Your task to perform on an android device: allow cookies in the chrome app Image 0: 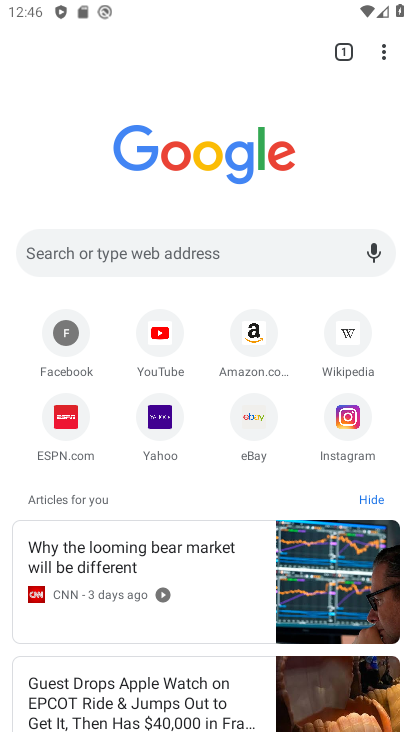
Step 0: press home button
Your task to perform on an android device: allow cookies in the chrome app Image 1: 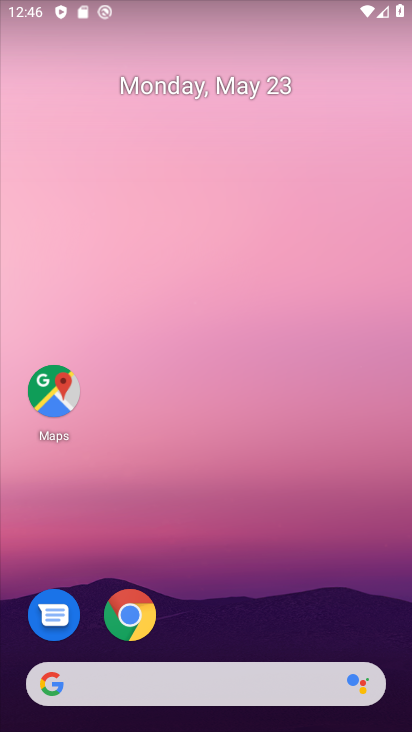
Step 1: click (125, 619)
Your task to perform on an android device: allow cookies in the chrome app Image 2: 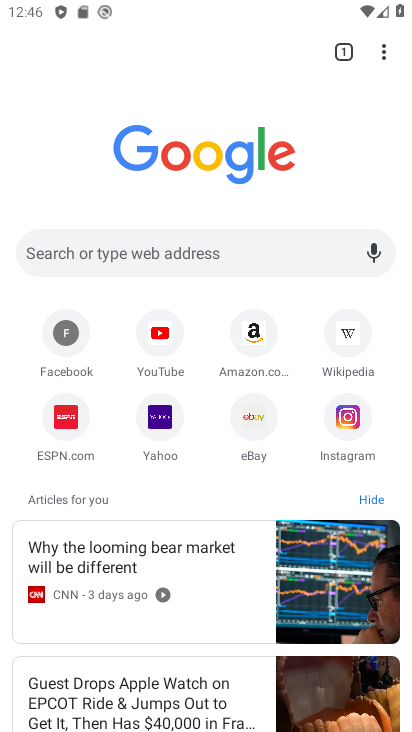
Step 2: click (386, 51)
Your task to perform on an android device: allow cookies in the chrome app Image 3: 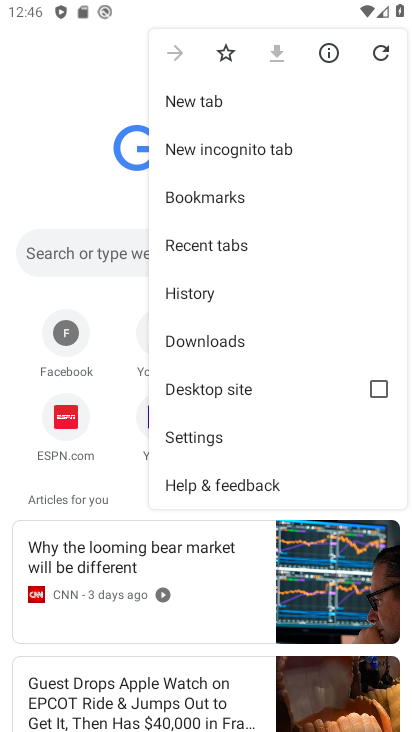
Step 3: click (196, 435)
Your task to perform on an android device: allow cookies in the chrome app Image 4: 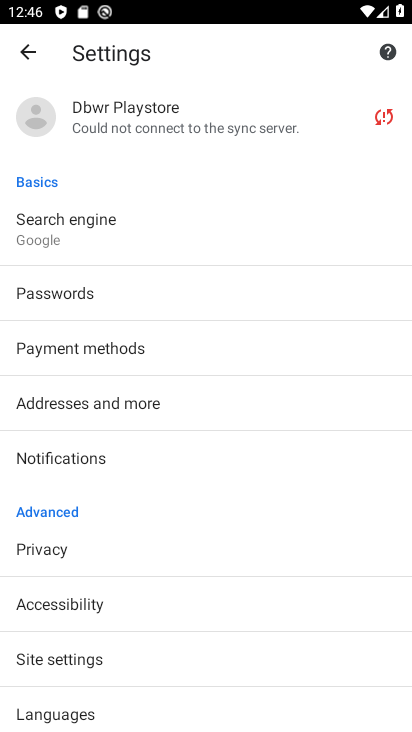
Step 4: drag from (117, 655) to (128, 337)
Your task to perform on an android device: allow cookies in the chrome app Image 5: 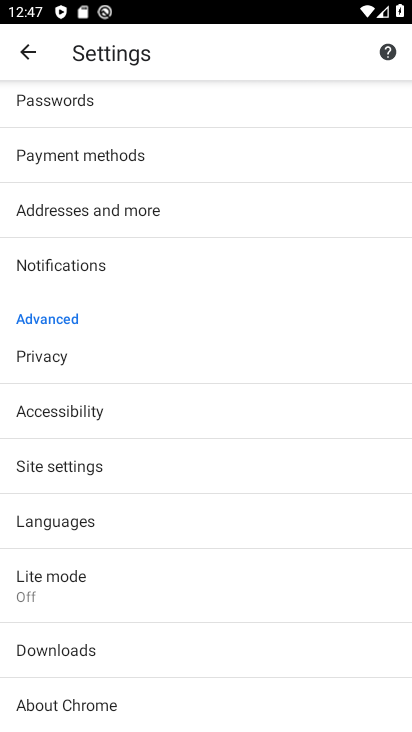
Step 5: click (61, 463)
Your task to perform on an android device: allow cookies in the chrome app Image 6: 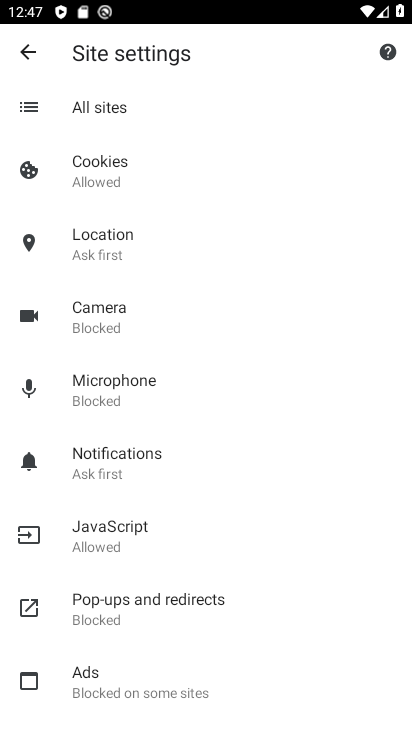
Step 6: click (83, 168)
Your task to perform on an android device: allow cookies in the chrome app Image 7: 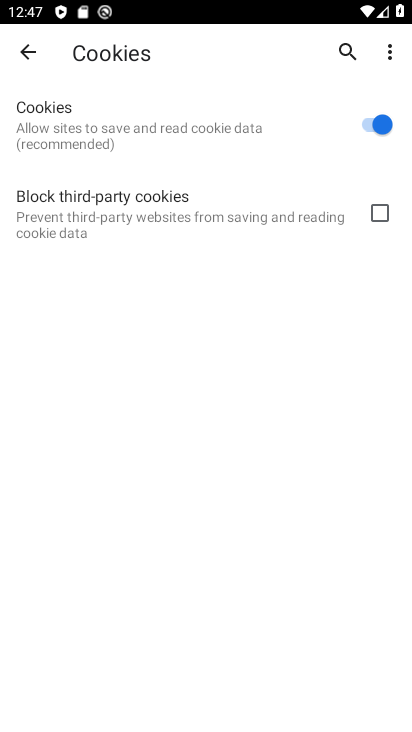
Step 7: task complete